Your task to perform on an android device: Open Chrome and go to the settings page Image 0: 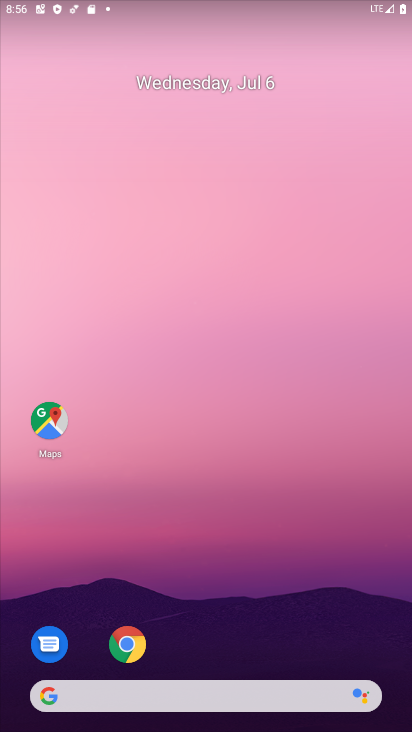
Step 0: click (129, 644)
Your task to perform on an android device: Open Chrome and go to the settings page Image 1: 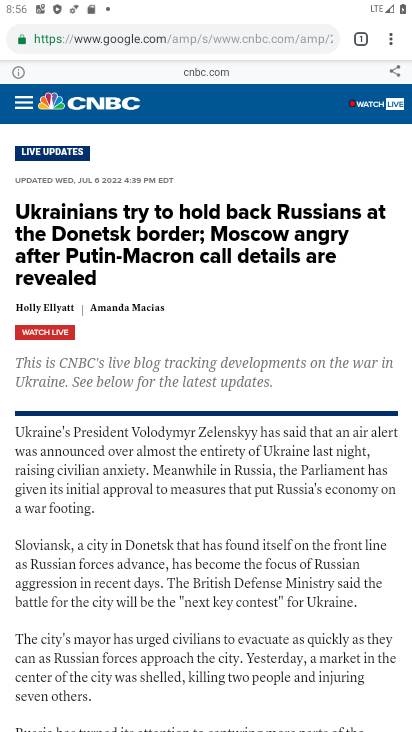
Step 1: click (384, 30)
Your task to perform on an android device: Open Chrome and go to the settings page Image 2: 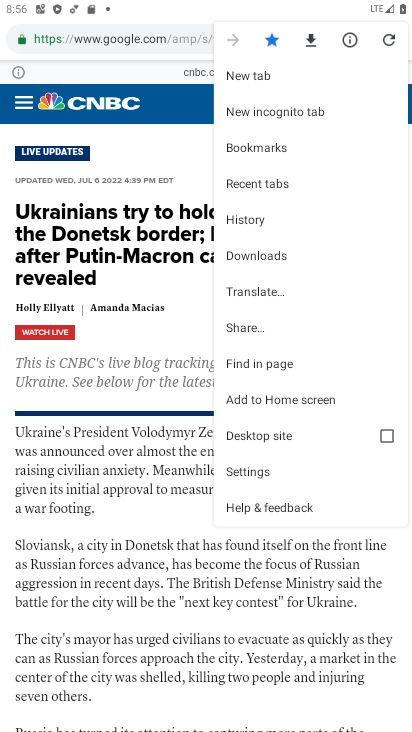
Step 2: click (262, 475)
Your task to perform on an android device: Open Chrome and go to the settings page Image 3: 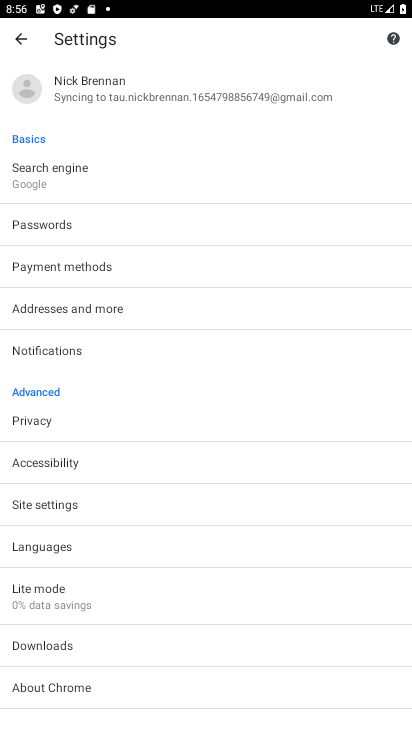
Step 3: task complete